Your task to perform on an android device: find snoozed emails in the gmail app Image 0: 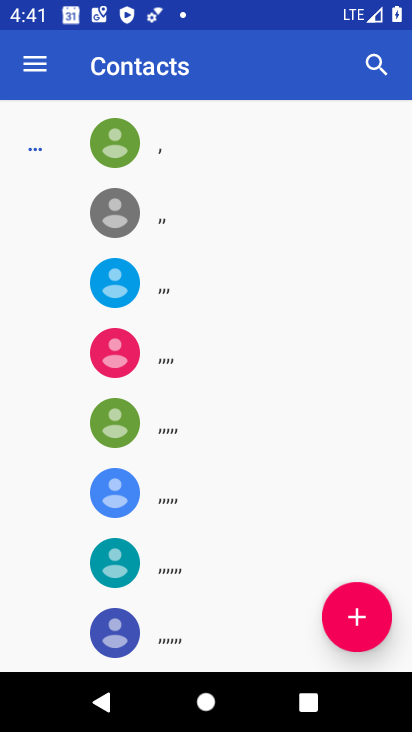
Step 0: press back button
Your task to perform on an android device: find snoozed emails in the gmail app Image 1: 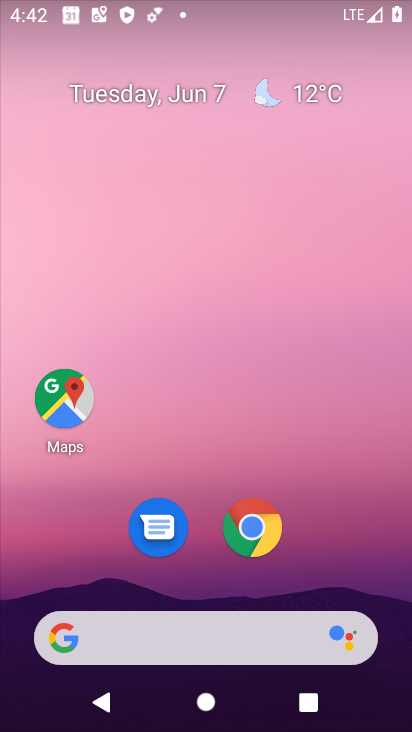
Step 1: drag from (328, 545) to (188, 169)
Your task to perform on an android device: find snoozed emails in the gmail app Image 2: 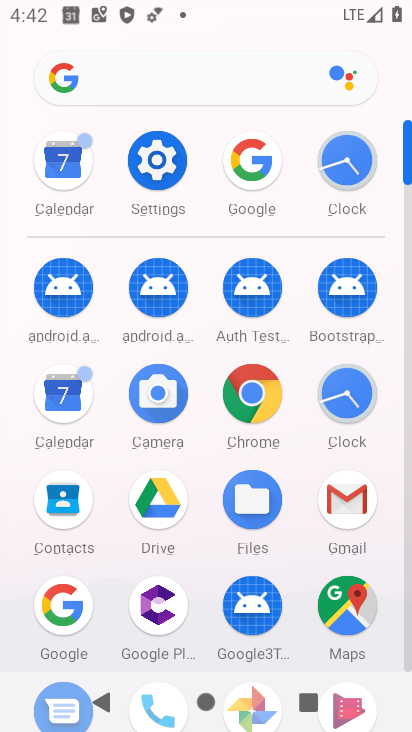
Step 2: click (343, 499)
Your task to perform on an android device: find snoozed emails in the gmail app Image 3: 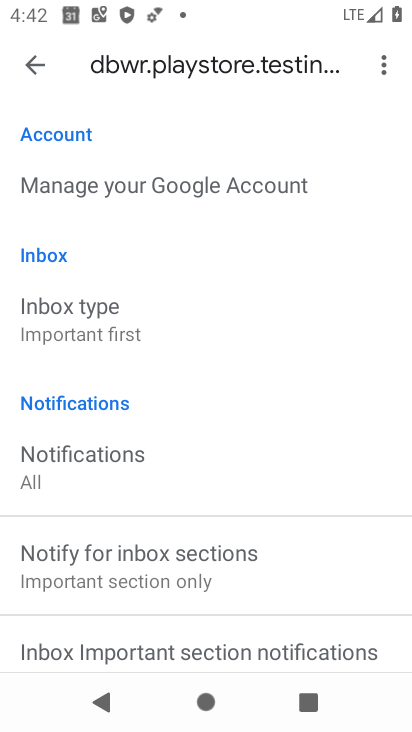
Step 3: press back button
Your task to perform on an android device: find snoozed emails in the gmail app Image 4: 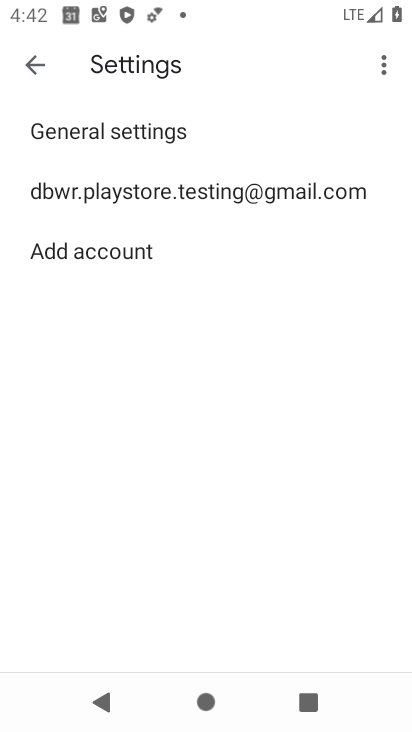
Step 4: press back button
Your task to perform on an android device: find snoozed emails in the gmail app Image 5: 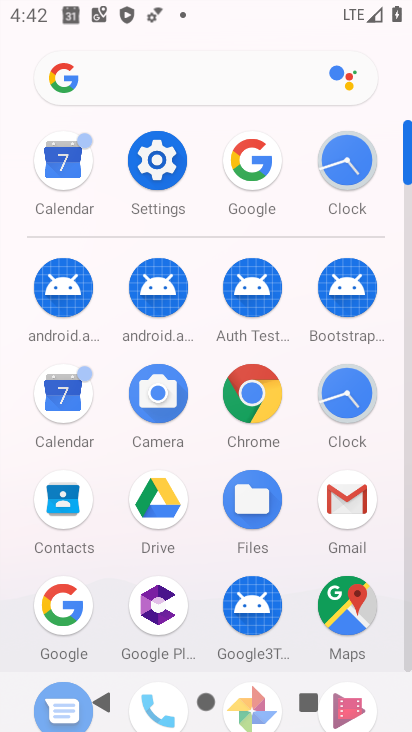
Step 5: click (349, 489)
Your task to perform on an android device: find snoozed emails in the gmail app Image 6: 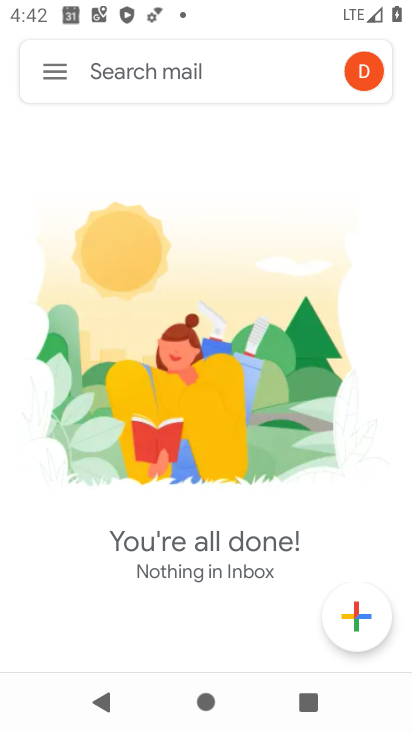
Step 6: click (56, 74)
Your task to perform on an android device: find snoozed emails in the gmail app Image 7: 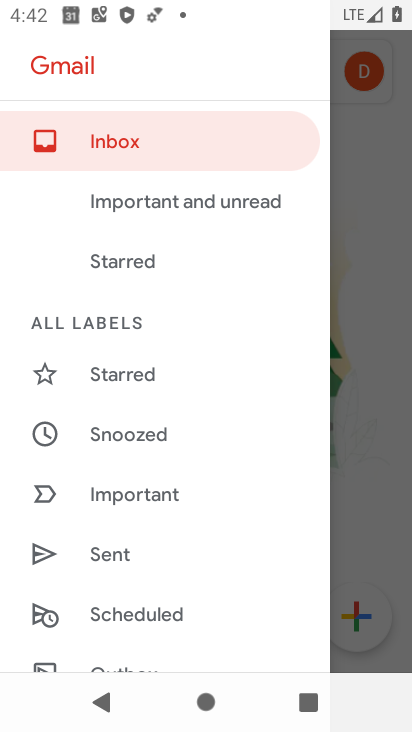
Step 7: click (125, 432)
Your task to perform on an android device: find snoozed emails in the gmail app Image 8: 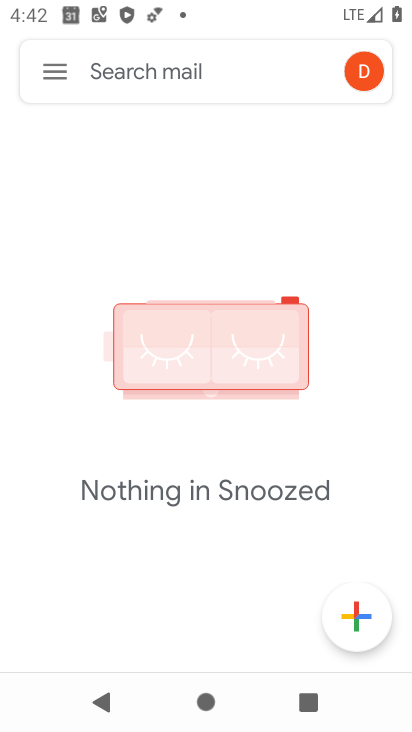
Step 8: task complete